Your task to perform on an android device: Show me popular games on the Play Store Image 0: 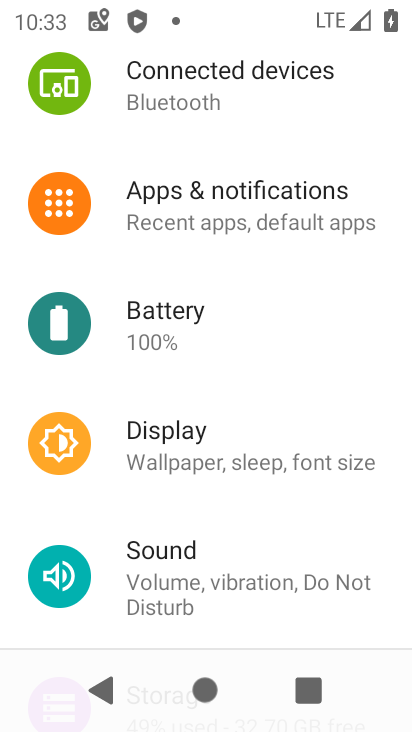
Step 0: press home button
Your task to perform on an android device: Show me popular games on the Play Store Image 1: 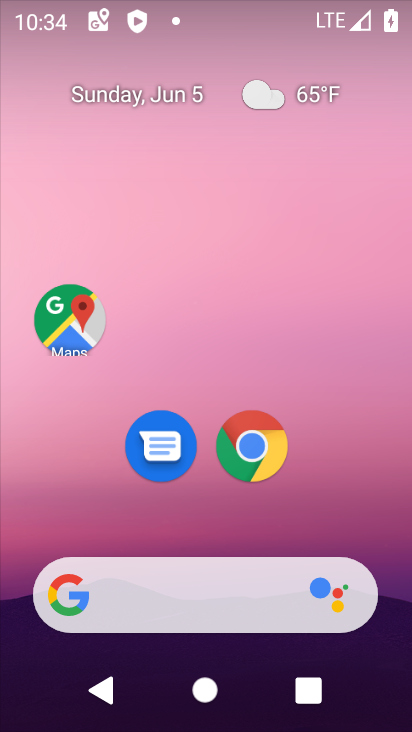
Step 1: drag from (188, 530) to (189, 181)
Your task to perform on an android device: Show me popular games on the Play Store Image 2: 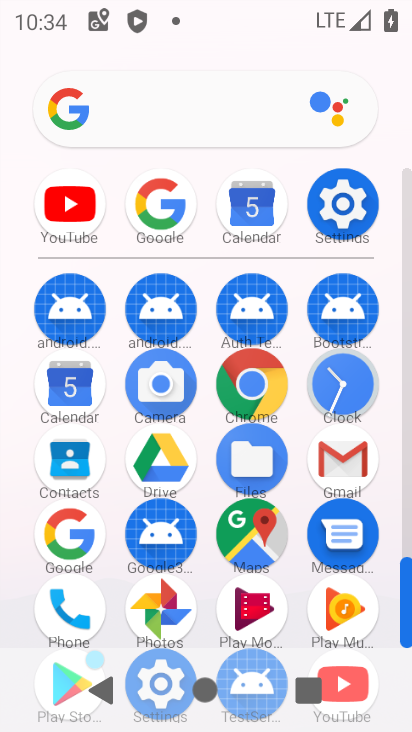
Step 2: drag from (204, 610) to (200, 389)
Your task to perform on an android device: Show me popular games on the Play Store Image 3: 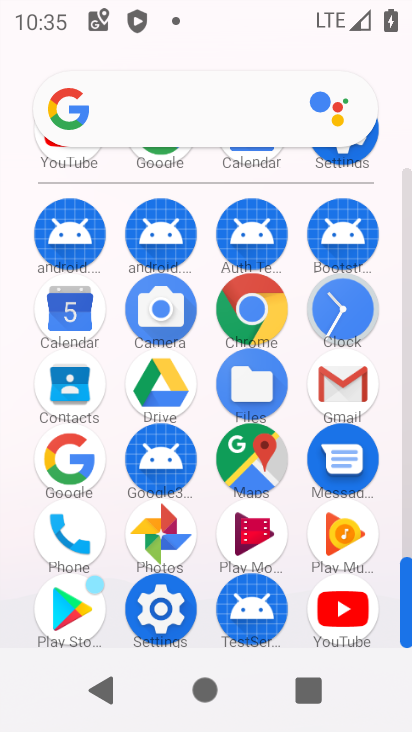
Step 3: click (57, 599)
Your task to perform on an android device: Show me popular games on the Play Store Image 4: 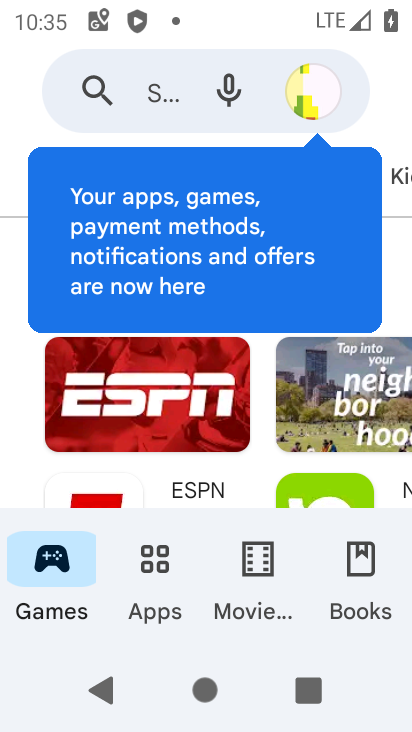
Step 4: task complete